Your task to perform on an android device: When is my next meeting? Image 0: 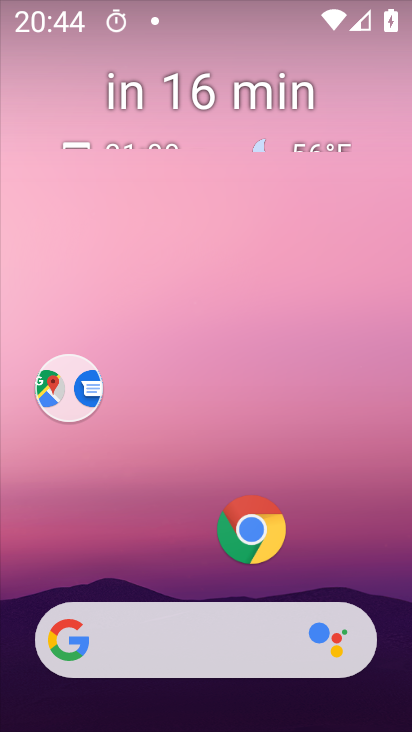
Step 0: drag from (168, 541) to (176, 70)
Your task to perform on an android device: When is my next meeting? Image 1: 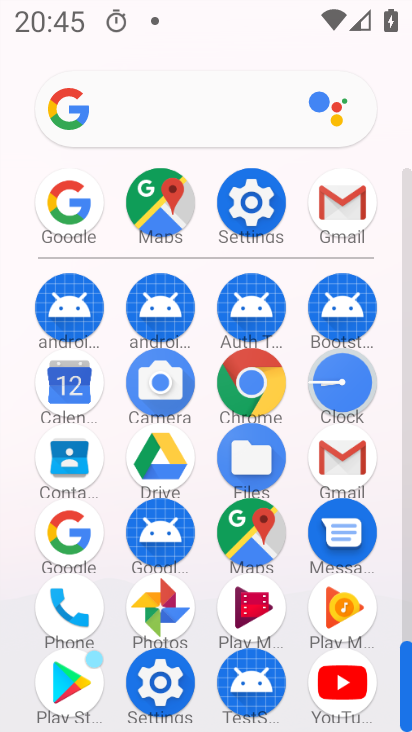
Step 1: click (75, 381)
Your task to perform on an android device: When is my next meeting? Image 2: 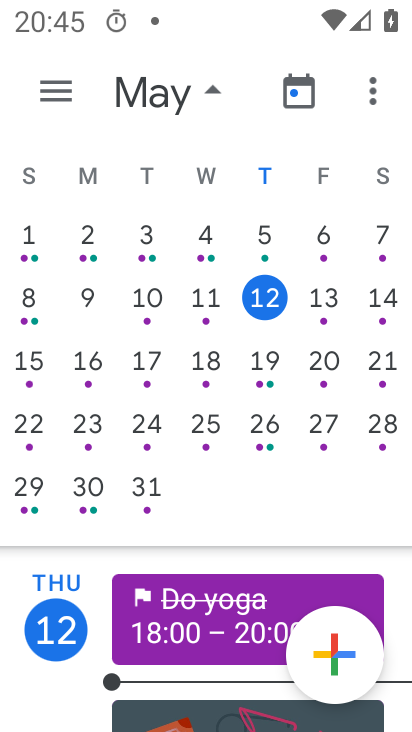
Step 2: click (276, 358)
Your task to perform on an android device: When is my next meeting? Image 3: 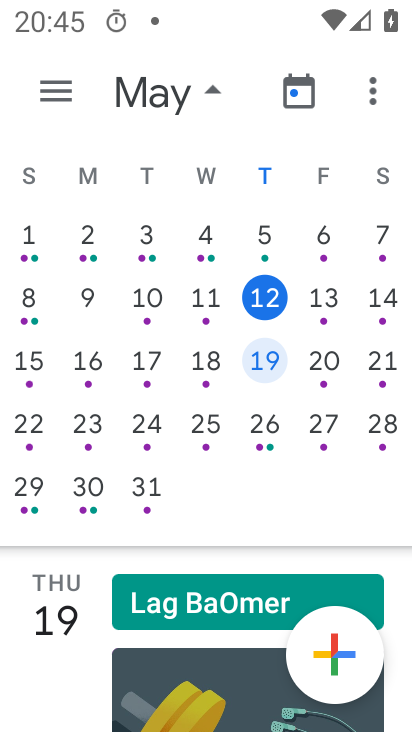
Step 3: task complete